Your task to perform on an android device: Go to Reddit.com Image 0: 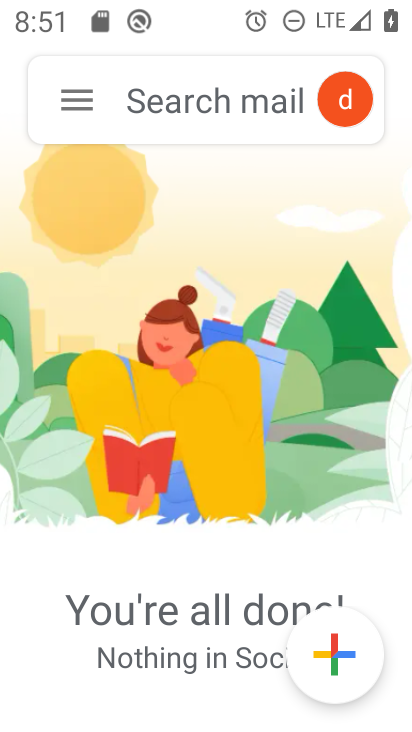
Step 0: press home button
Your task to perform on an android device: Go to Reddit.com Image 1: 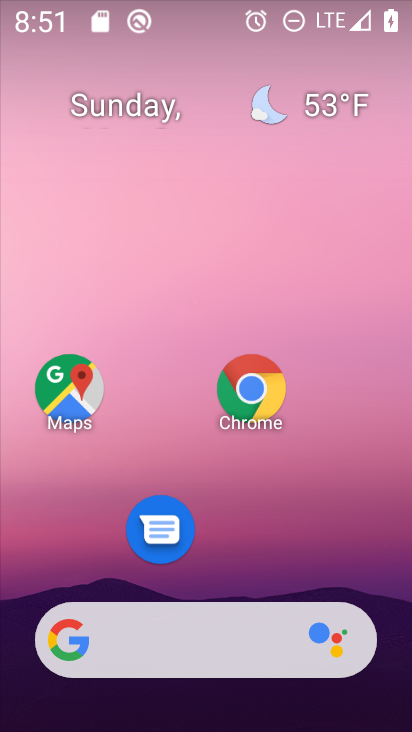
Step 1: click (271, 379)
Your task to perform on an android device: Go to Reddit.com Image 2: 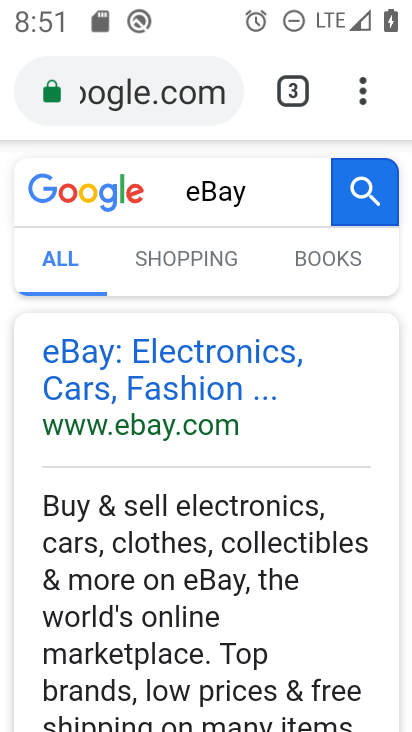
Step 2: click (195, 95)
Your task to perform on an android device: Go to Reddit.com Image 3: 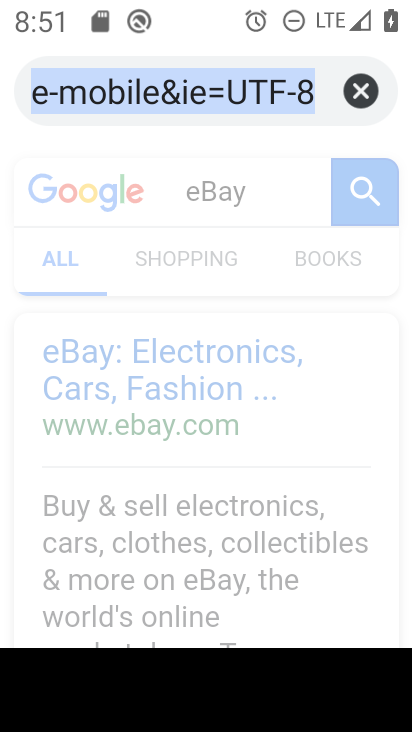
Step 3: type "reddit.com"
Your task to perform on an android device: Go to Reddit.com Image 4: 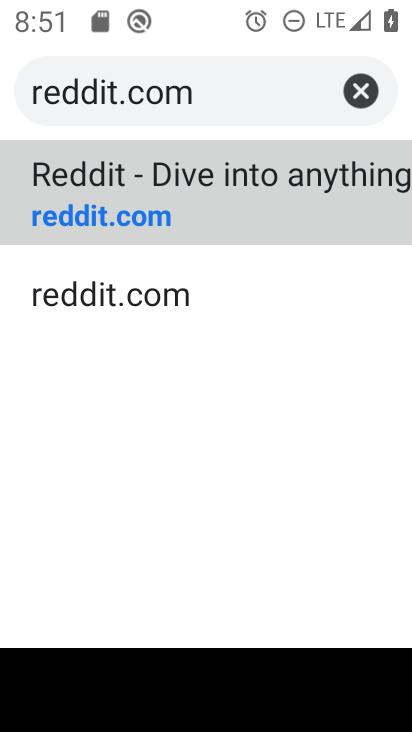
Step 4: click (164, 308)
Your task to perform on an android device: Go to Reddit.com Image 5: 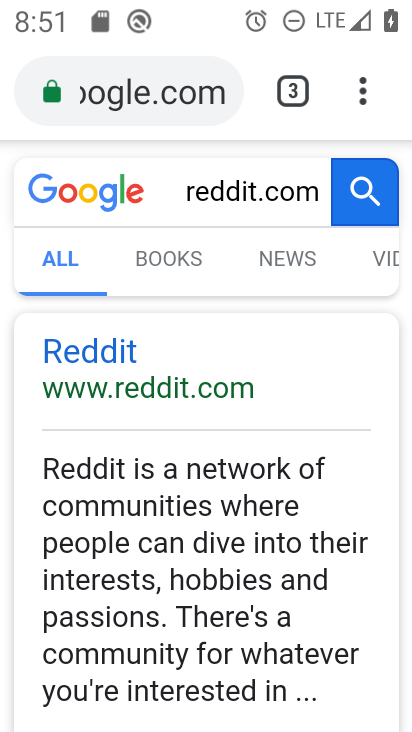
Step 5: task complete